Your task to perform on an android device: Show me recent news Image 0: 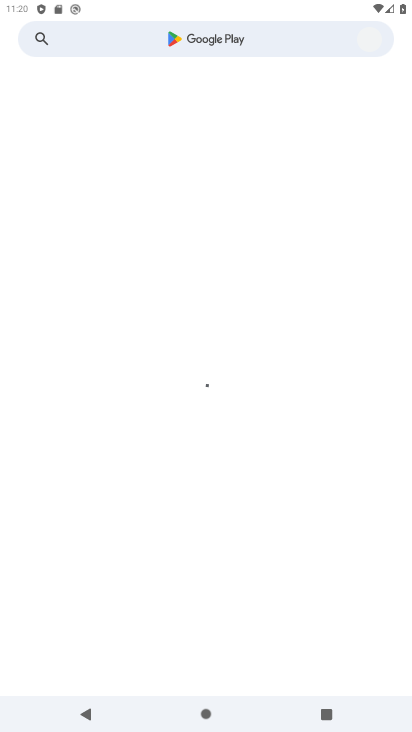
Step 0: press home button
Your task to perform on an android device: Show me recent news Image 1: 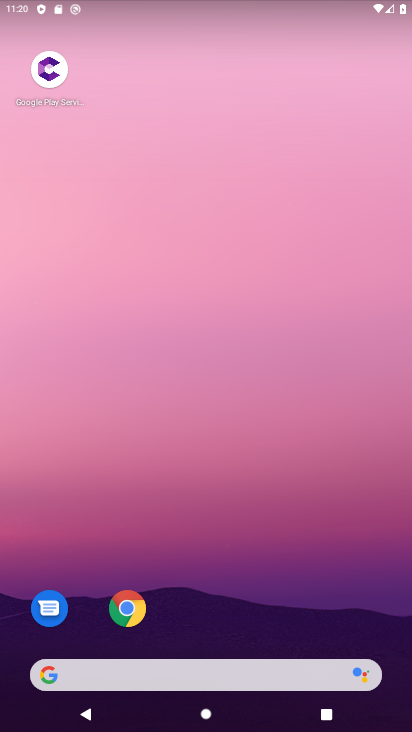
Step 1: click (167, 679)
Your task to perform on an android device: Show me recent news Image 2: 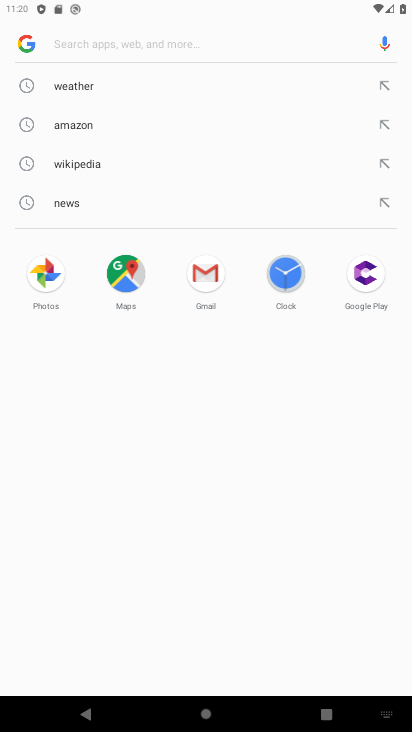
Step 2: type "recent news"
Your task to perform on an android device: Show me recent news Image 3: 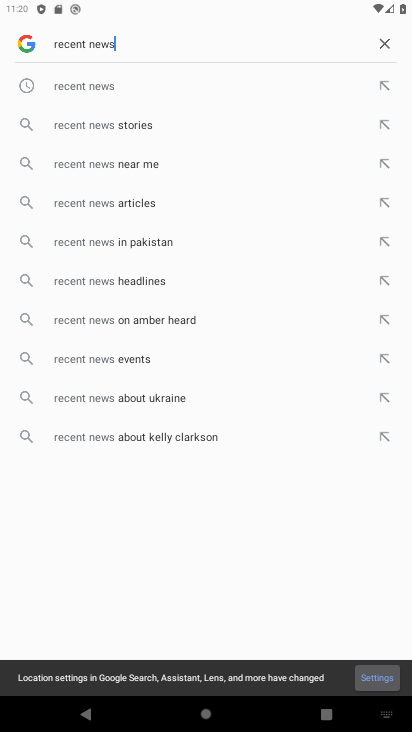
Step 3: click (113, 48)
Your task to perform on an android device: Show me recent news Image 4: 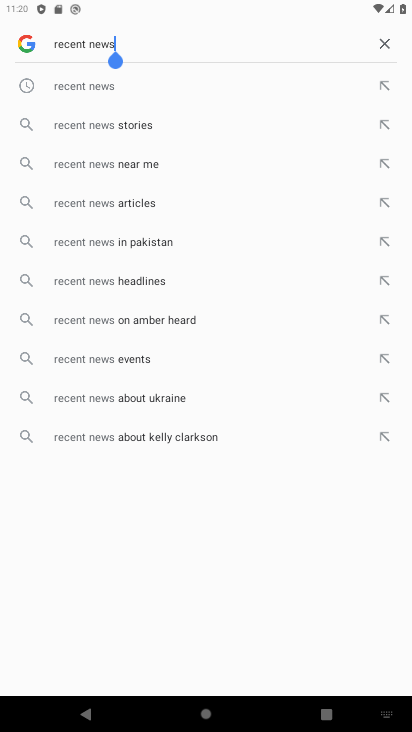
Step 4: click (100, 95)
Your task to perform on an android device: Show me recent news Image 5: 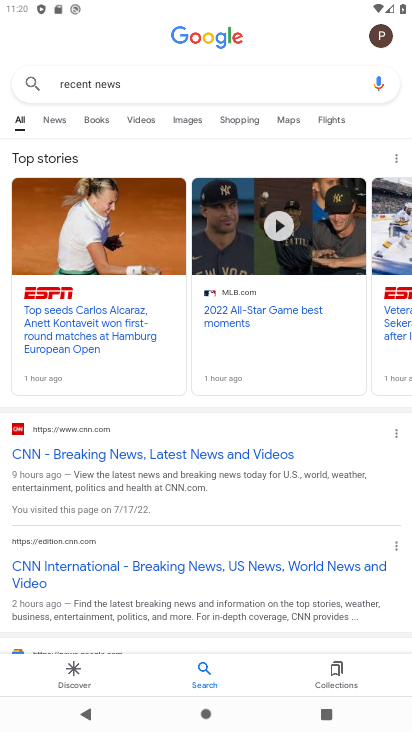
Step 5: task complete